Your task to perform on an android device: When is my next appointment? Image 0: 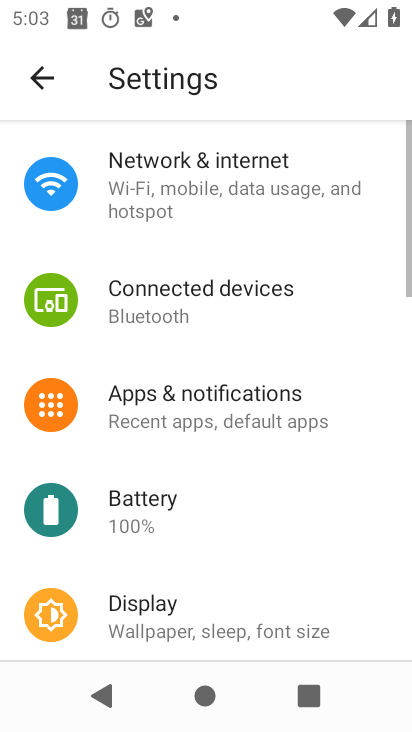
Step 0: press back button
Your task to perform on an android device: When is my next appointment? Image 1: 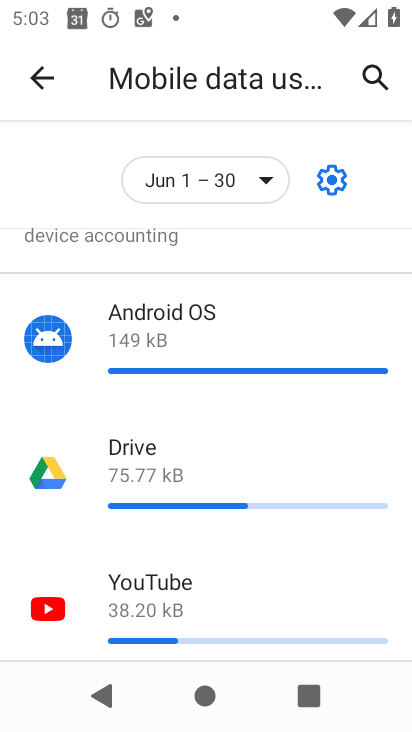
Step 1: press back button
Your task to perform on an android device: When is my next appointment? Image 2: 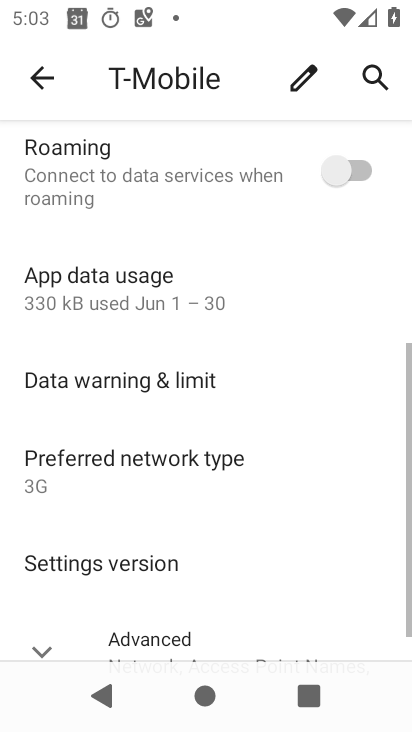
Step 2: press back button
Your task to perform on an android device: When is my next appointment? Image 3: 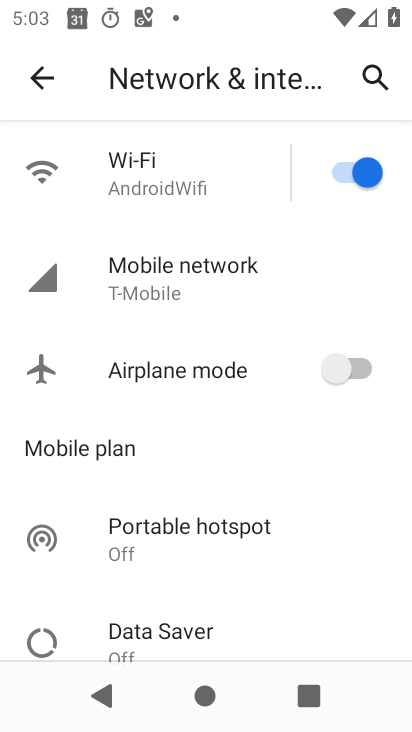
Step 3: press back button
Your task to perform on an android device: When is my next appointment? Image 4: 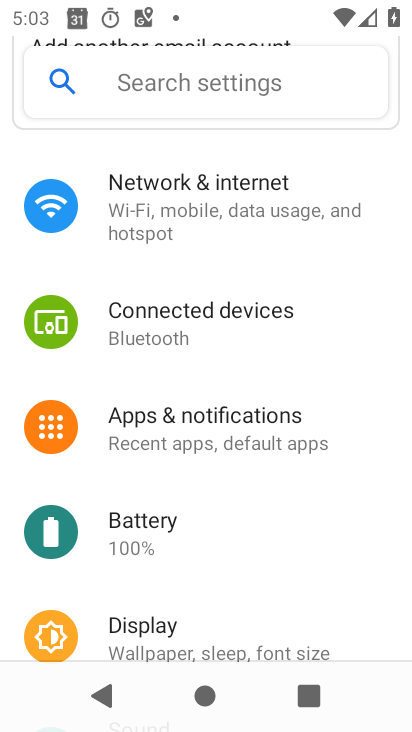
Step 4: press back button
Your task to perform on an android device: When is my next appointment? Image 5: 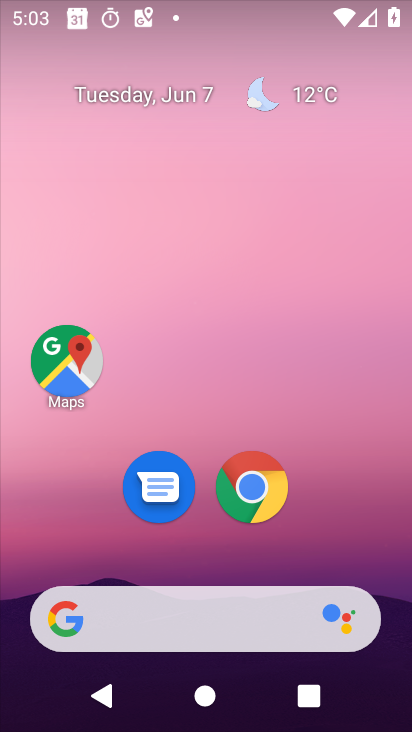
Step 5: drag from (263, 523) to (285, 0)
Your task to perform on an android device: When is my next appointment? Image 6: 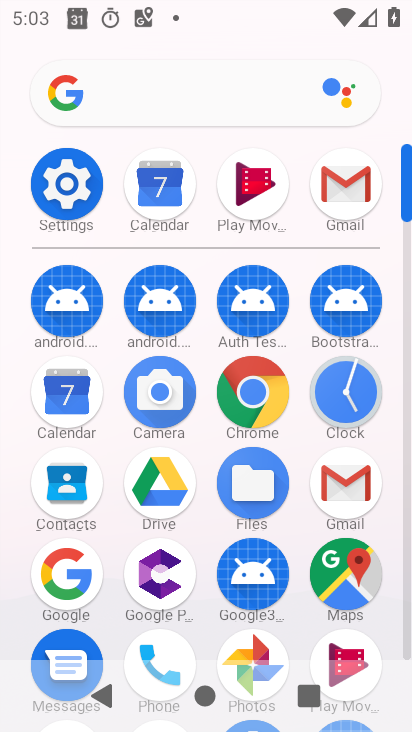
Step 6: click (73, 392)
Your task to perform on an android device: When is my next appointment? Image 7: 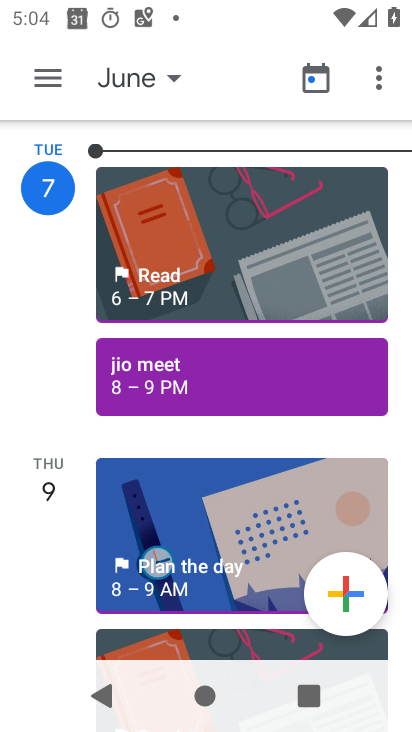
Step 7: task complete